Your task to perform on an android device: open the mobile data screen to see how much data has been used Image 0: 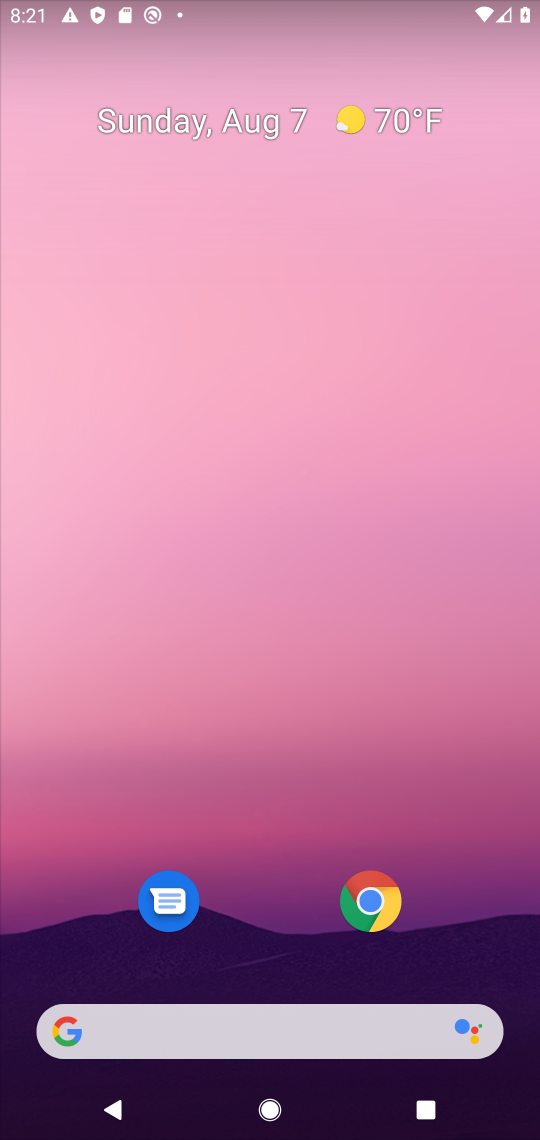
Step 0: drag from (275, 903) to (263, 329)
Your task to perform on an android device: open the mobile data screen to see how much data has been used Image 1: 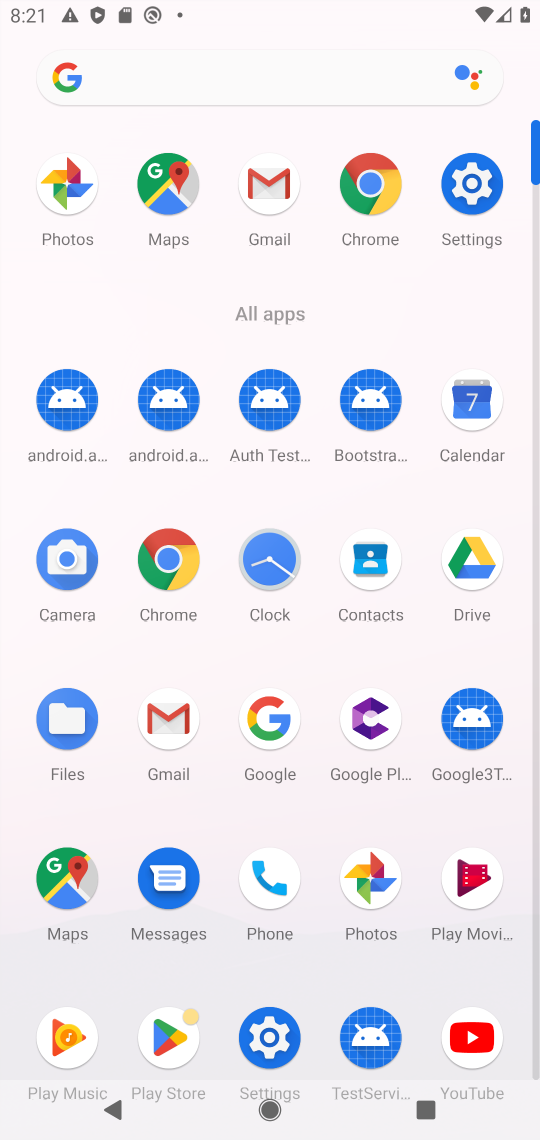
Step 1: click (482, 196)
Your task to perform on an android device: open the mobile data screen to see how much data has been used Image 2: 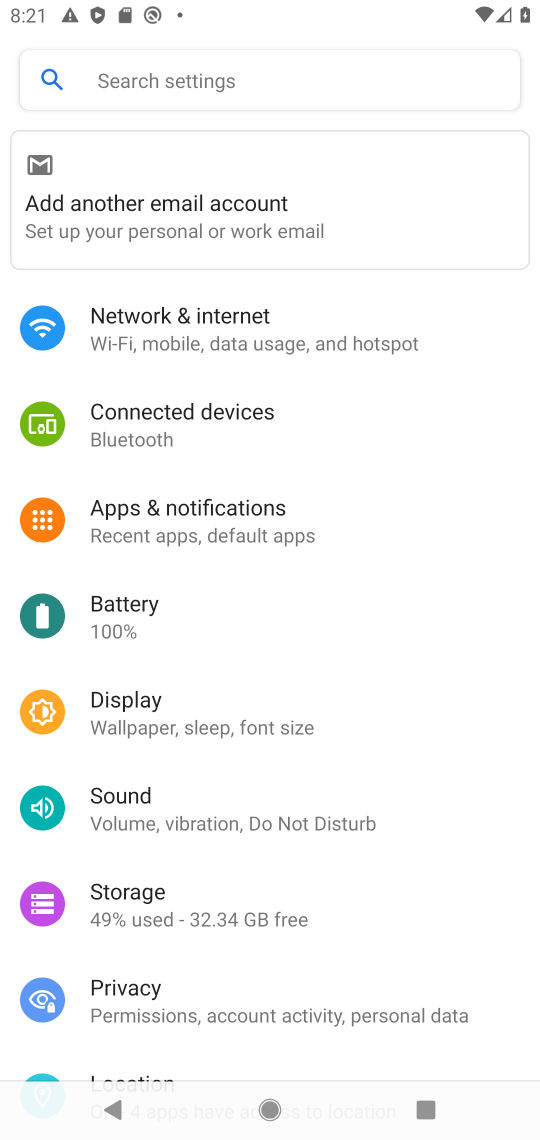
Step 2: click (204, 324)
Your task to perform on an android device: open the mobile data screen to see how much data has been used Image 3: 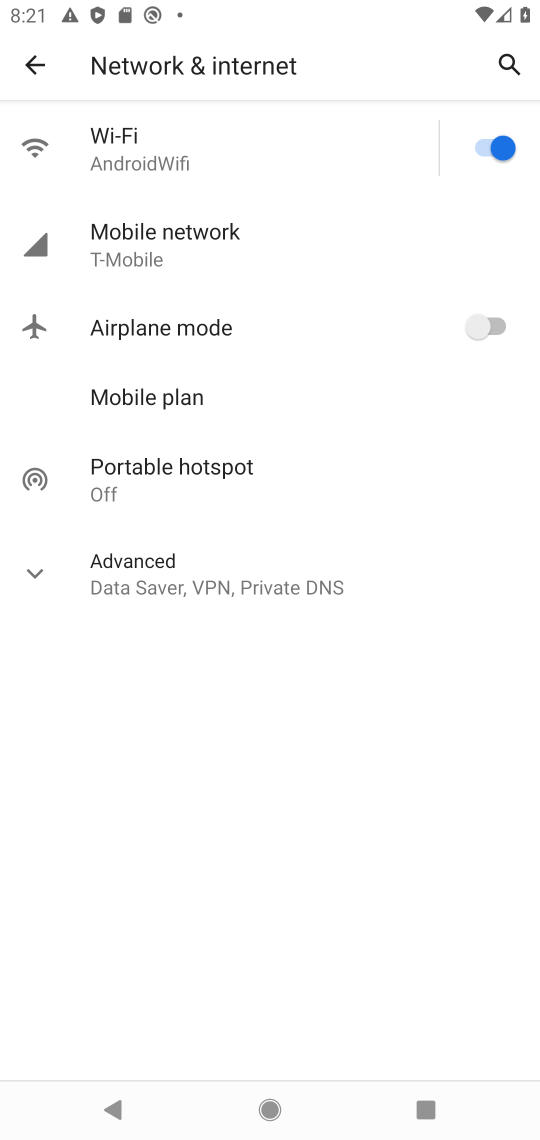
Step 3: click (174, 246)
Your task to perform on an android device: open the mobile data screen to see how much data has been used Image 4: 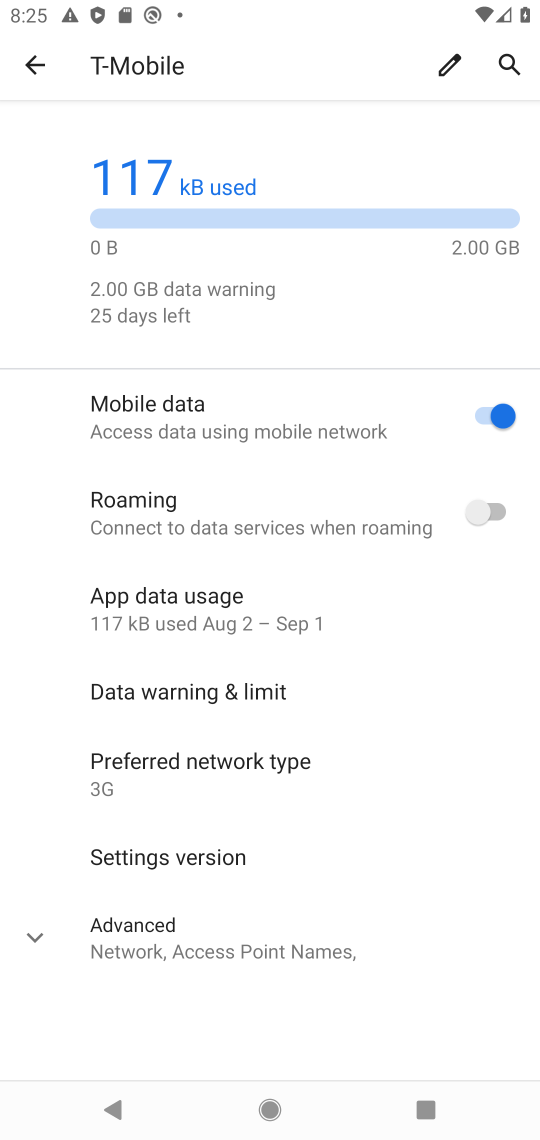
Step 4: task complete